Your task to perform on an android device: Show me productivity apps on the Play Store Image 0: 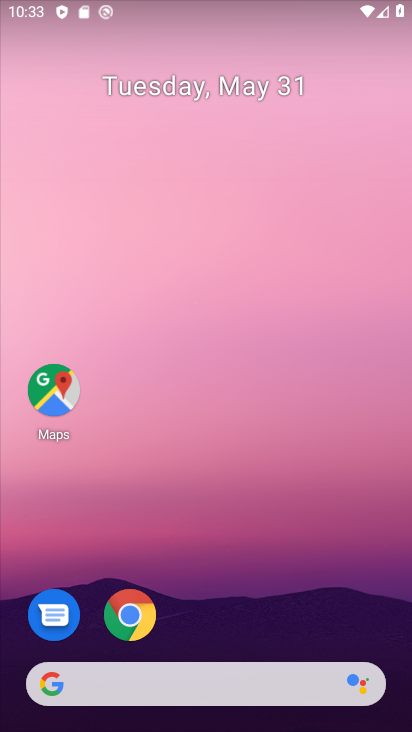
Step 0: drag from (243, 633) to (225, 261)
Your task to perform on an android device: Show me productivity apps on the Play Store Image 1: 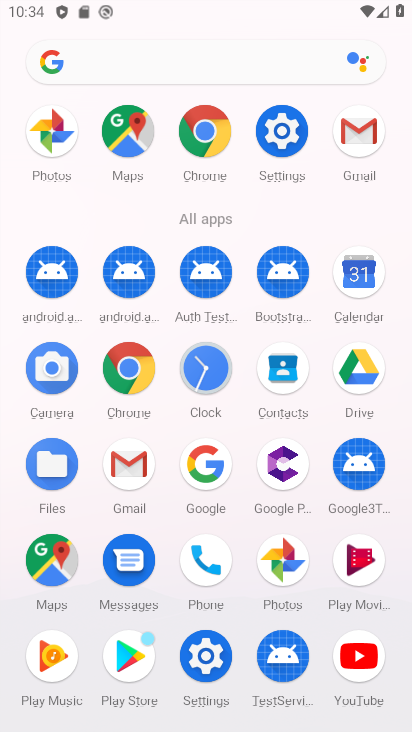
Step 1: task complete